Your task to perform on an android device: check the backup settings in the google photos Image 0: 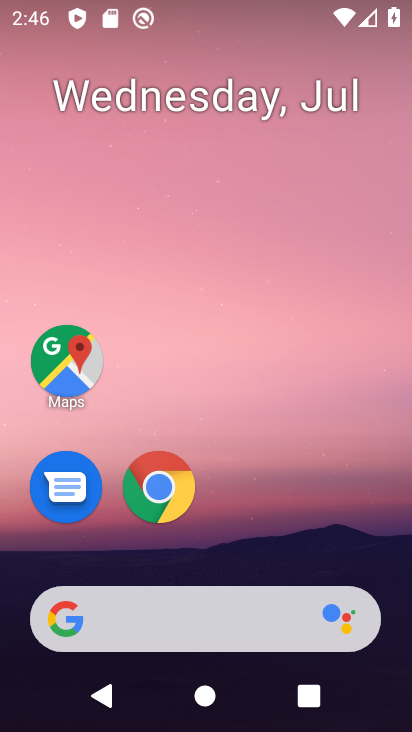
Step 0: drag from (399, 569) to (318, 4)
Your task to perform on an android device: check the backup settings in the google photos Image 1: 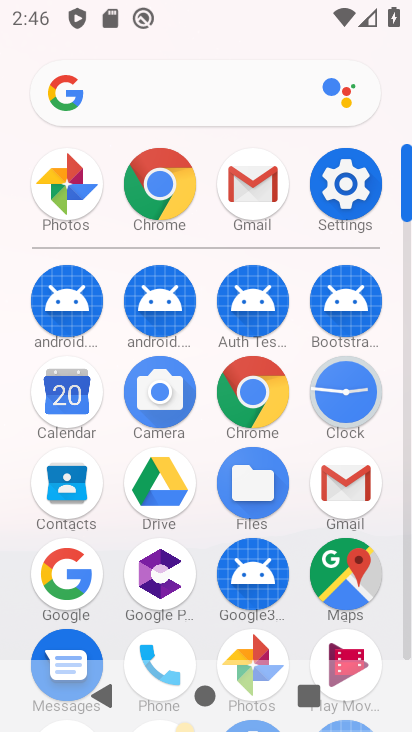
Step 1: click (75, 195)
Your task to perform on an android device: check the backup settings in the google photos Image 2: 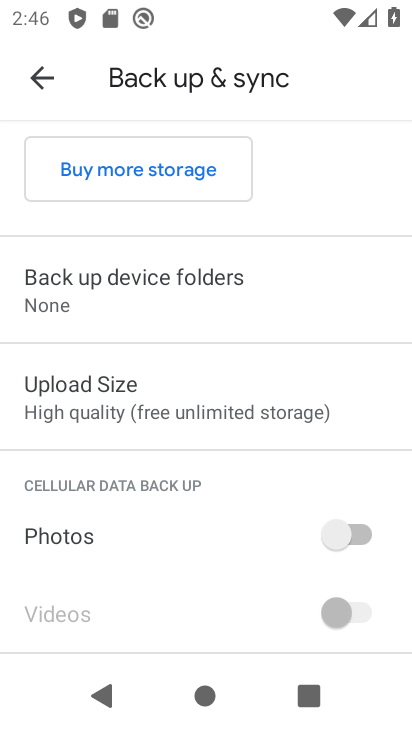
Step 2: task complete